Your task to perform on an android device: check android version Image 0: 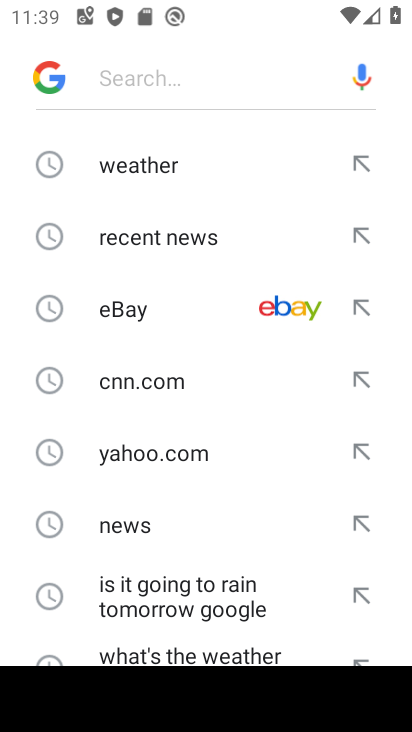
Step 0: press home button
Your task to perform on an android device: check android version Image 1: 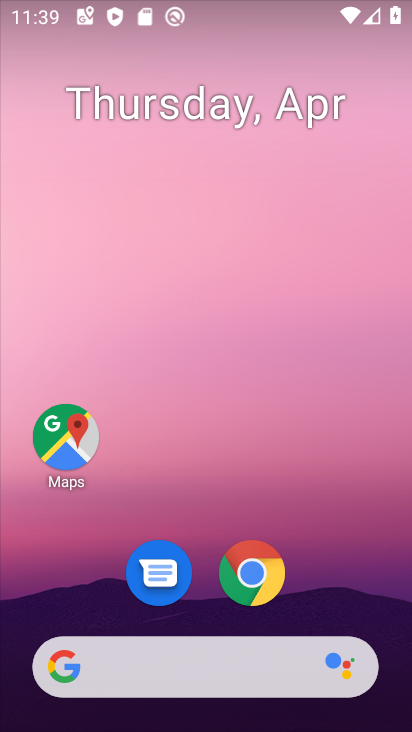
Step 1: drag from (206, 573) to (212, 95)
Your task to perform on an android device: check android version Image 2: 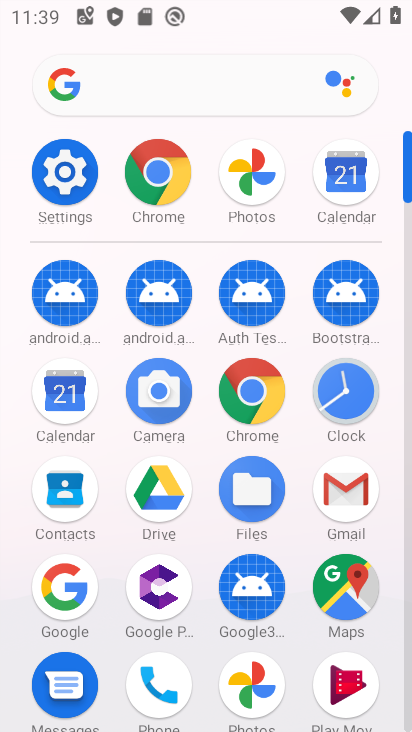
Step 2: click (70, 172)
Your task to perform on an android device: check android version Image 3: 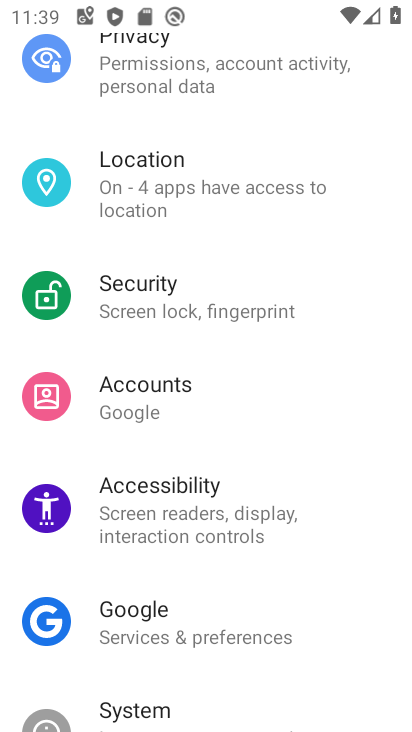
Step 3: drag from (212, 664) to (194, 187)
Your task to perform on an android device: check android version Image 4: 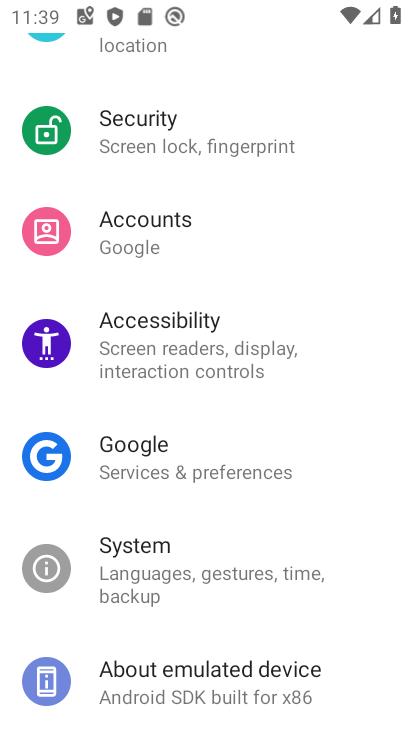
Step 4: click (196, 661)
Your task to perform on an android device: check android version Image 5: 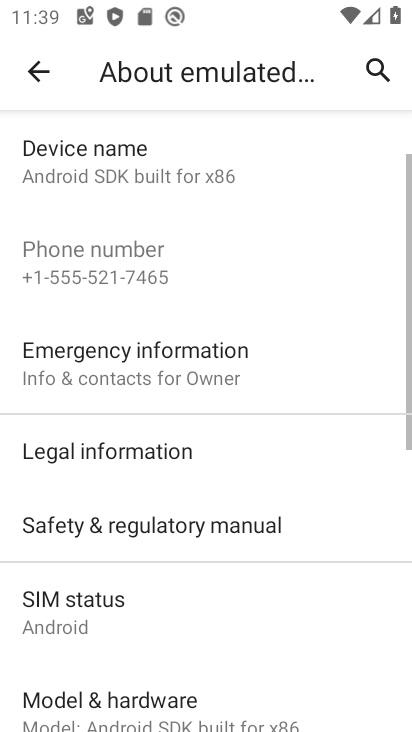
Step 5: drag from (198, 660) to (216, 155)
Your task to perform on an android device: check android version Image 6: 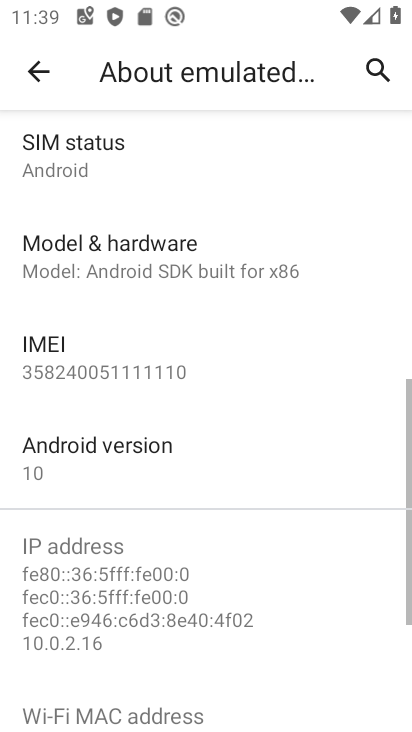
Step 6: click (99, 449)
Your task to perform on an android device: check android version Image 7: 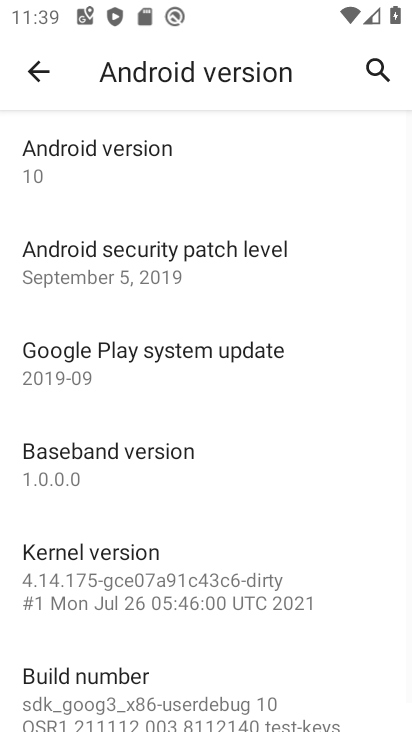
Step 7: click (126, 165)
Your task to perform on an android device: check android version Image 8: 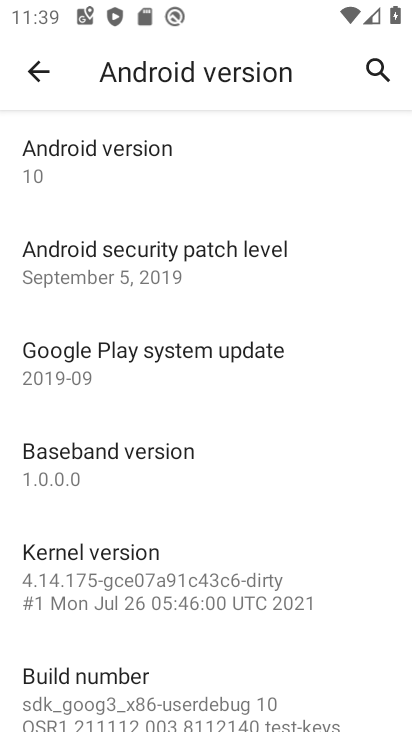
Step 8: task complete